Your task to perform on an android device: Search for vegetarian restaurants on Maps Image 0: 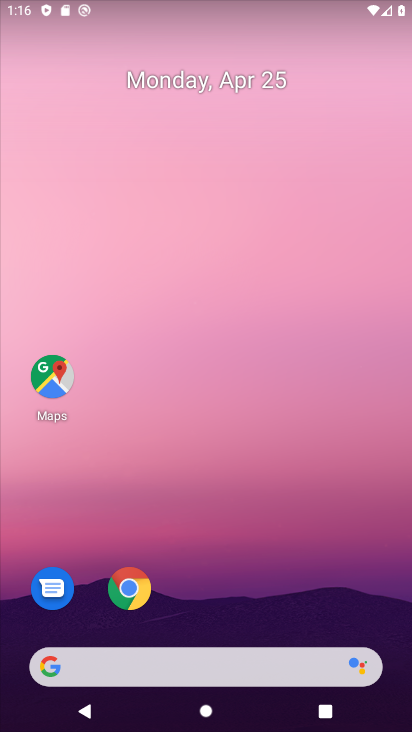
Step 0: click (292, 506)
Your task to perform on an android device: Search for vegetarian restaurants on Maps Image 1: 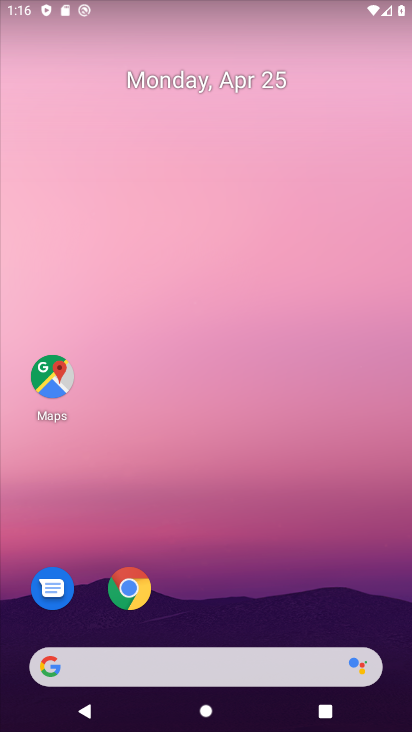
Step 1: click (69, 382)
Your task to perform on an android device: Search for vegetarian restaurants on Maps Image 2: 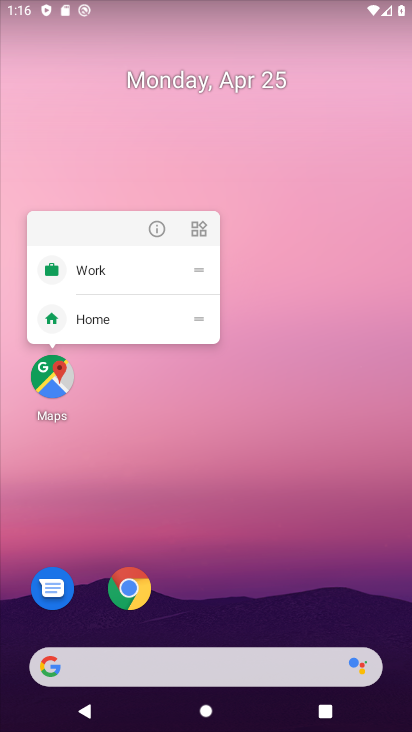
Step 2: click (153, 234)
Your task to perform on an android device: Search for vegetarian restaurants on Maps Image 3: 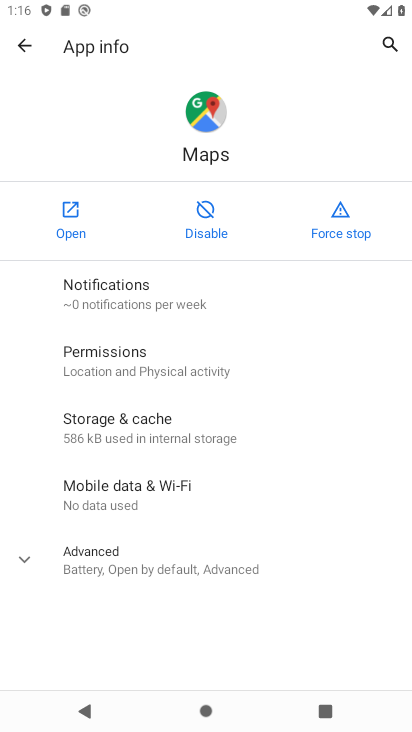
Step 3: click (78, 233)
Your task to perform on an android device: Search for vegetarian restaurants on Maps Image 4: 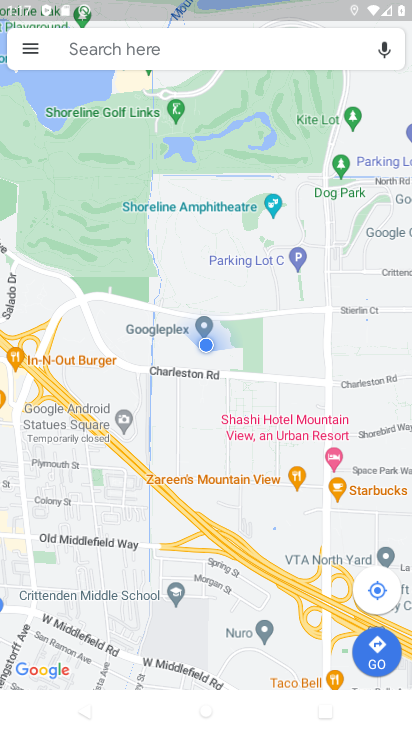
Step 4: click (167, 60)
Your task to perform on an android device: Search for vegetarian restaurants on Maps Image 5: 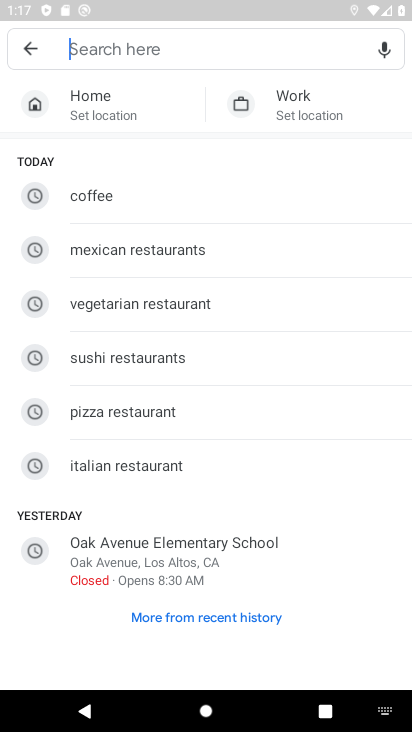
Step 5: click (187, 319)
Your task to perform on an android device: Search for vegetarian restaurants on Maps Image 6: 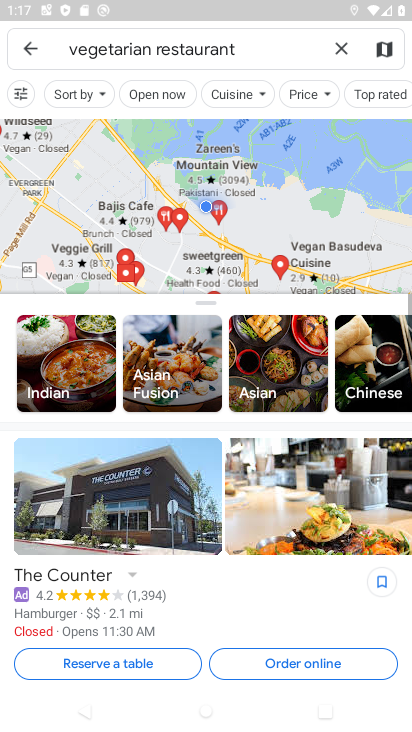
Step 6: task complete